Your task to perform on an android device: Open battery settings Image 0: 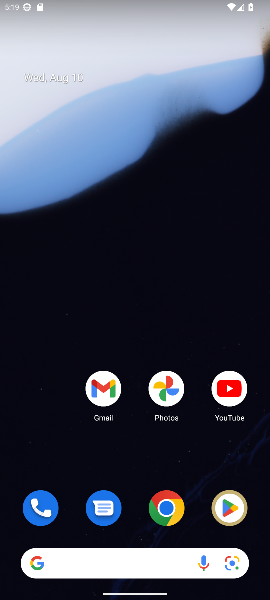
Step 0: press home button
Your task to perform on an android device: Open battery settings Image 1: 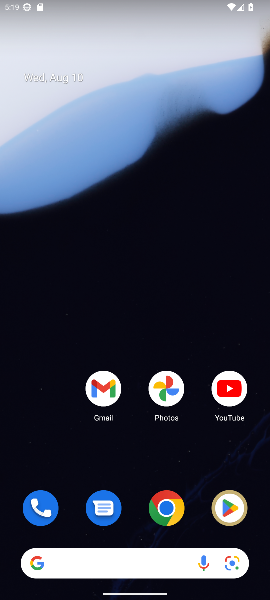
Step 1: drag from (66, 430) to (70, 61)
Your task to perform on an android device: Open battery settings Image 2: 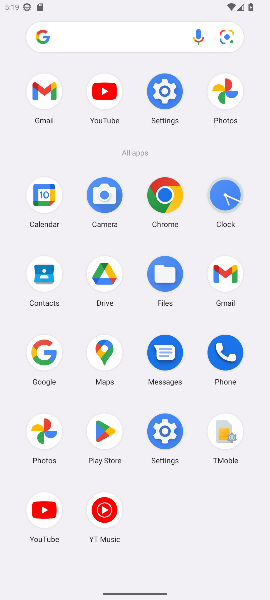
Step 2: click (170, 90)
Your task to perform on an android device: Open battery settings Image 3: 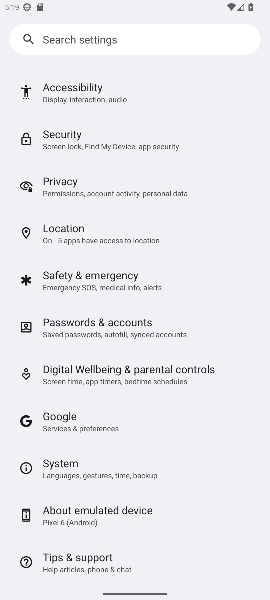
Step 3: drag from (38, 444) to (20, 592)
Your task to perform on an android device: Open battery settings Image 4: 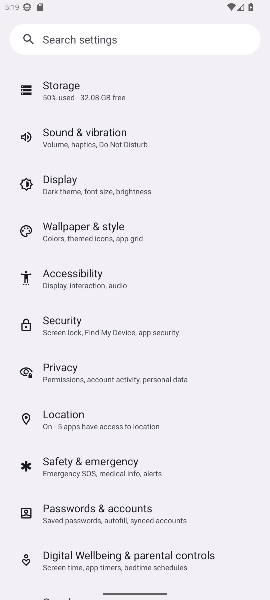
Step 4: drag from (31, 168) to (7, 367)
Your task to perform on an android device: Open battery settings Image 5: 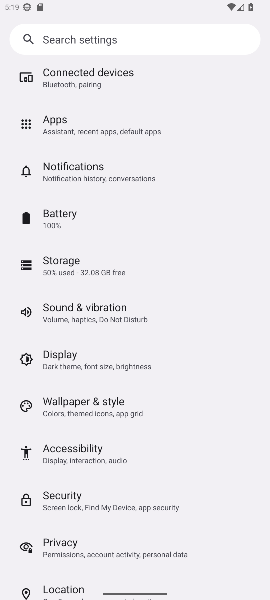
Step 5: click (45, 218)
Your task to perform on an android device: Open battery settings Image 6: 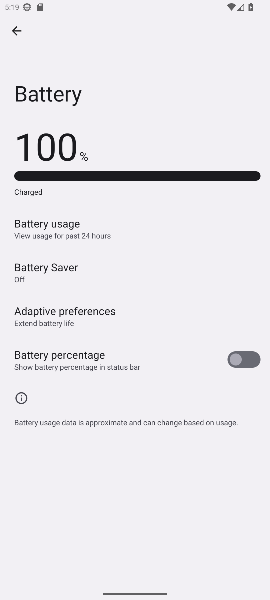
Step 6: task complete